Your task to perform on an android device: Search for pizza restaurants on Maps Image 0: 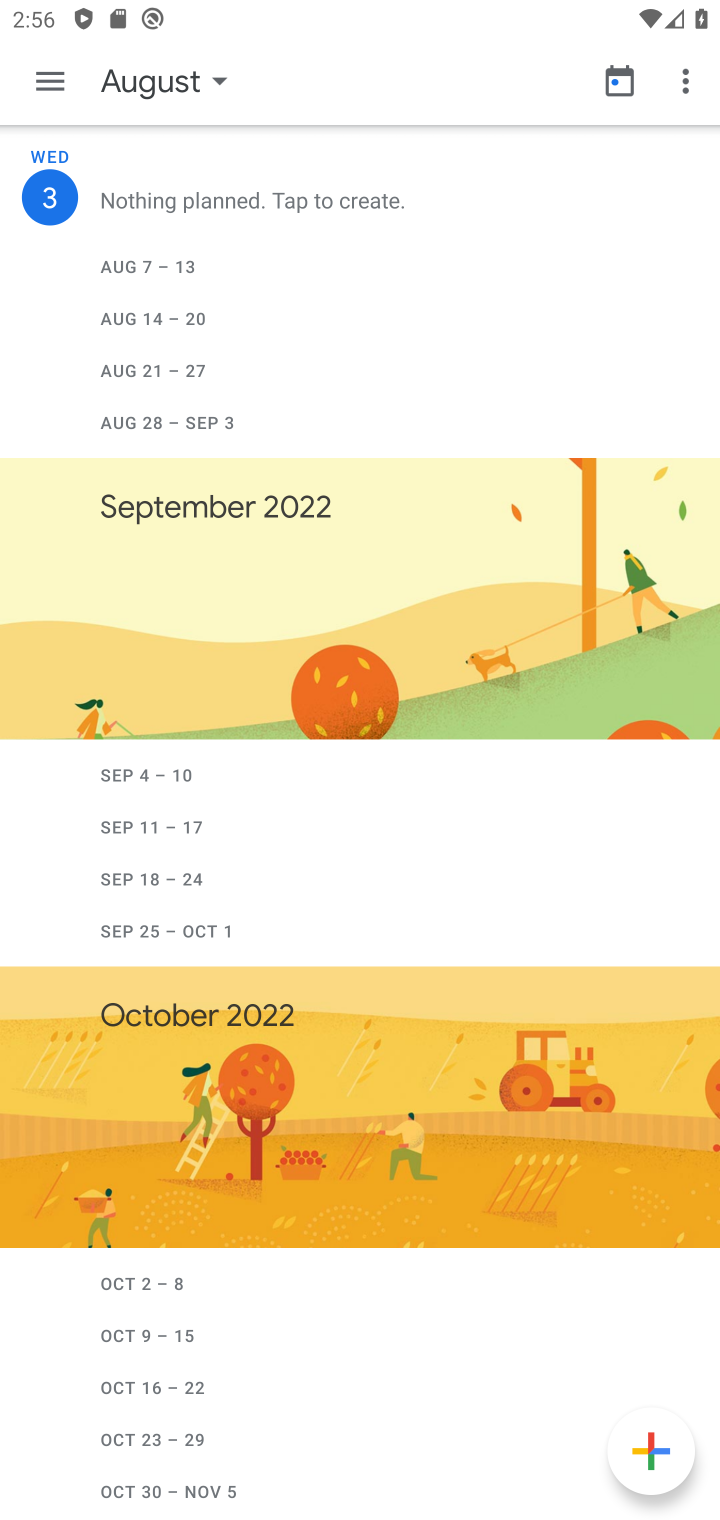
Step 0: press back button
Your task to perform on an android device: Search for pizza restaurants on Maps Image 1: 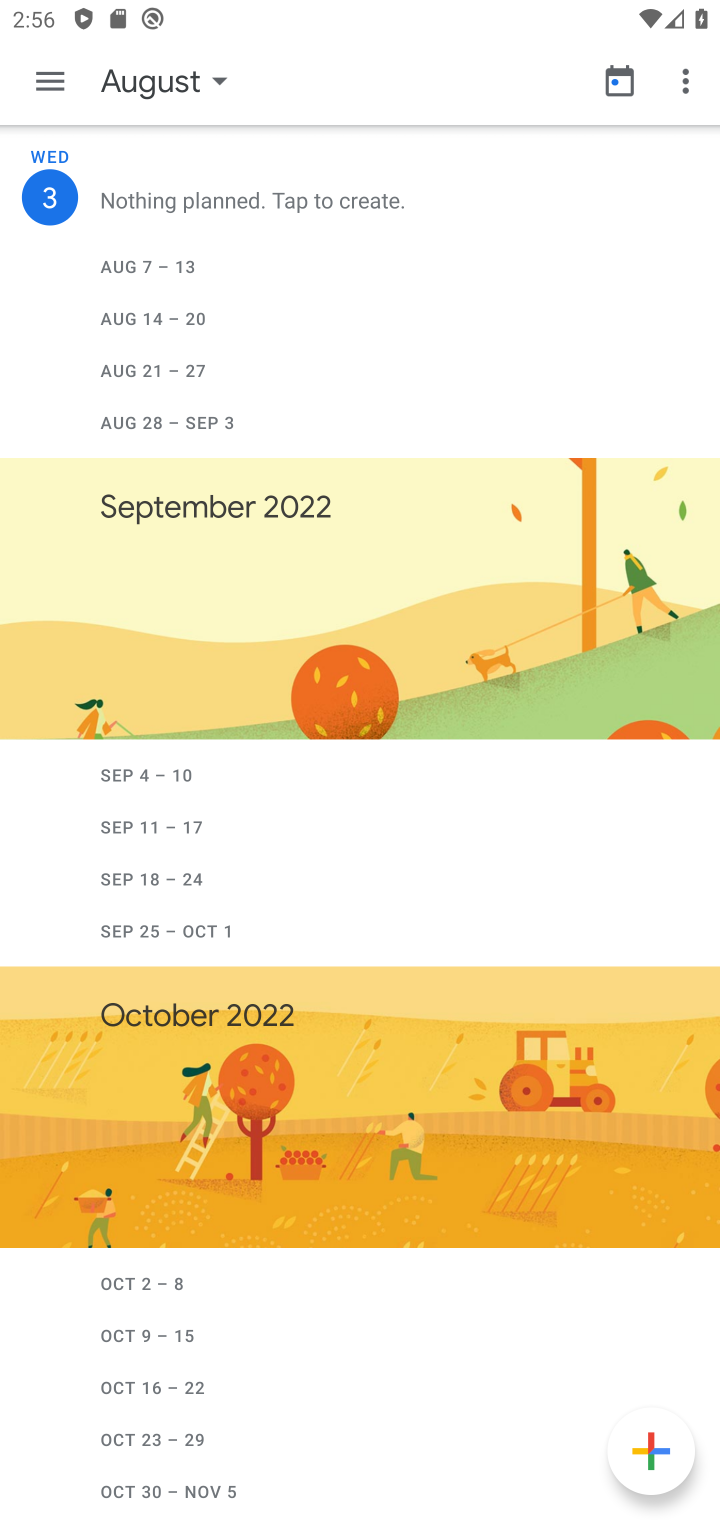
Step 1: press home button
Your task to perform on an android device: Search for pizza restaurants on Maps Image 2: 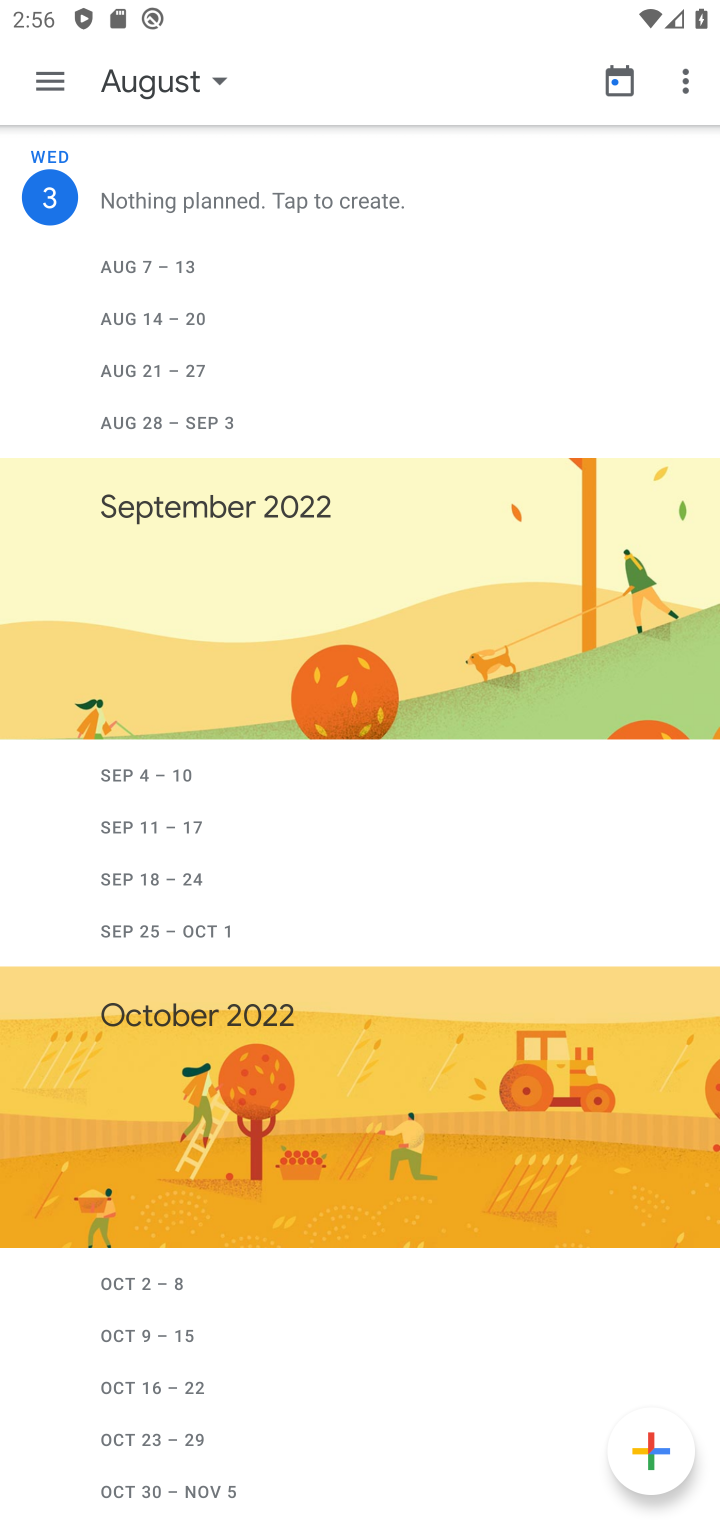
Step 2: drag from (361, 425) to (349, 334)
Your task to perform on an android device: Search for pizza restaurants on Maps Image 3: 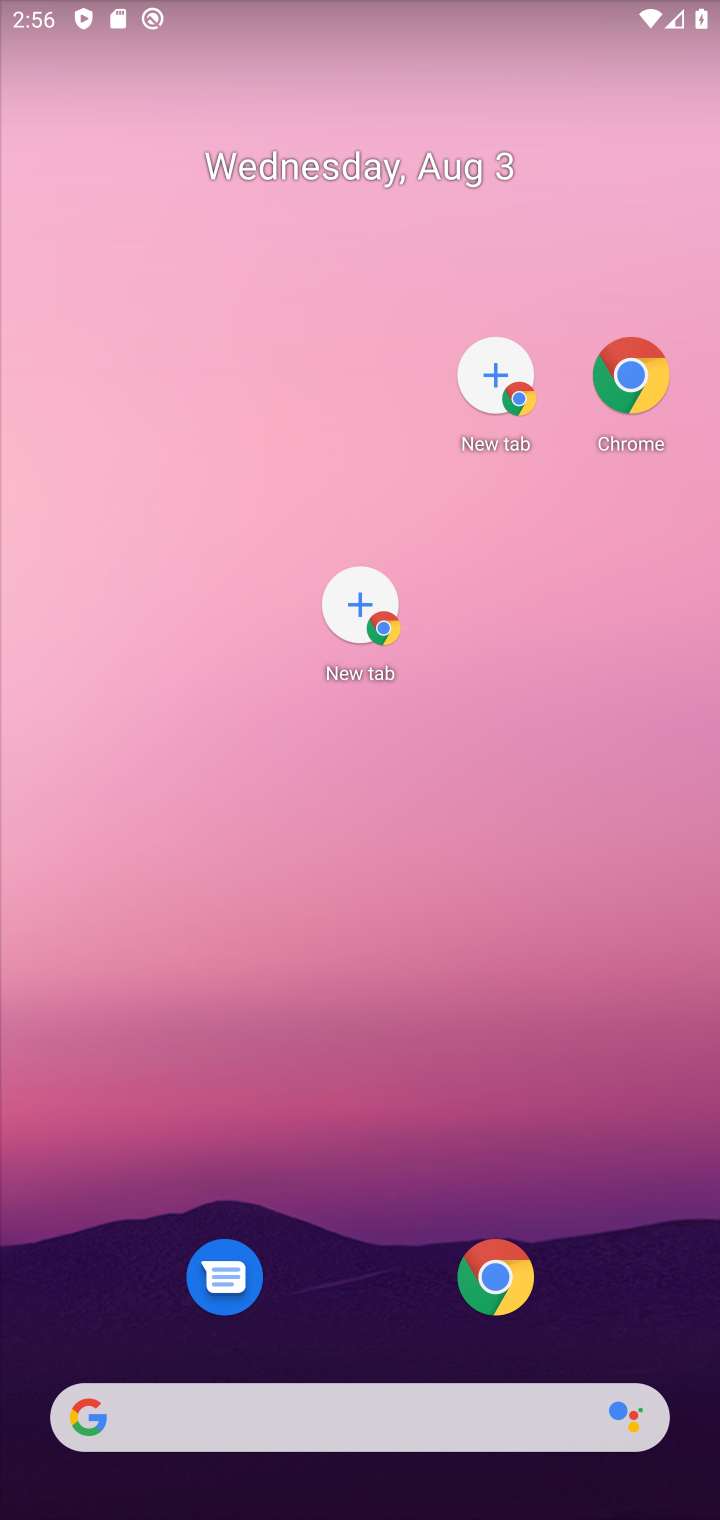
Step 3: drag from (380, 1361) to (224, 389)
Your task to perform on an android device: Search for pizza restaurants on Maps Image 4: 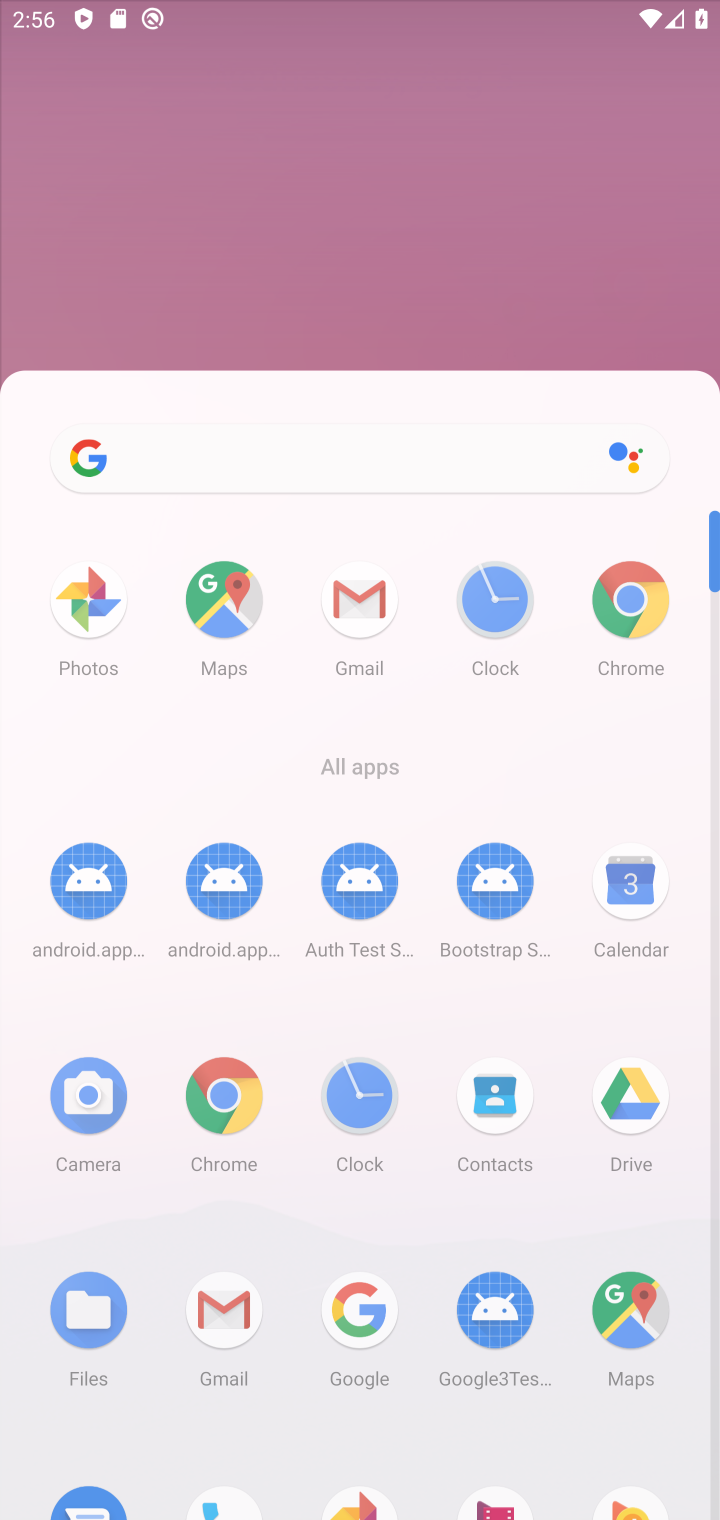
Step 4: click (272, 414)
Your task to perform on an android device: Search for pizza restaurants on Maps Image 5: 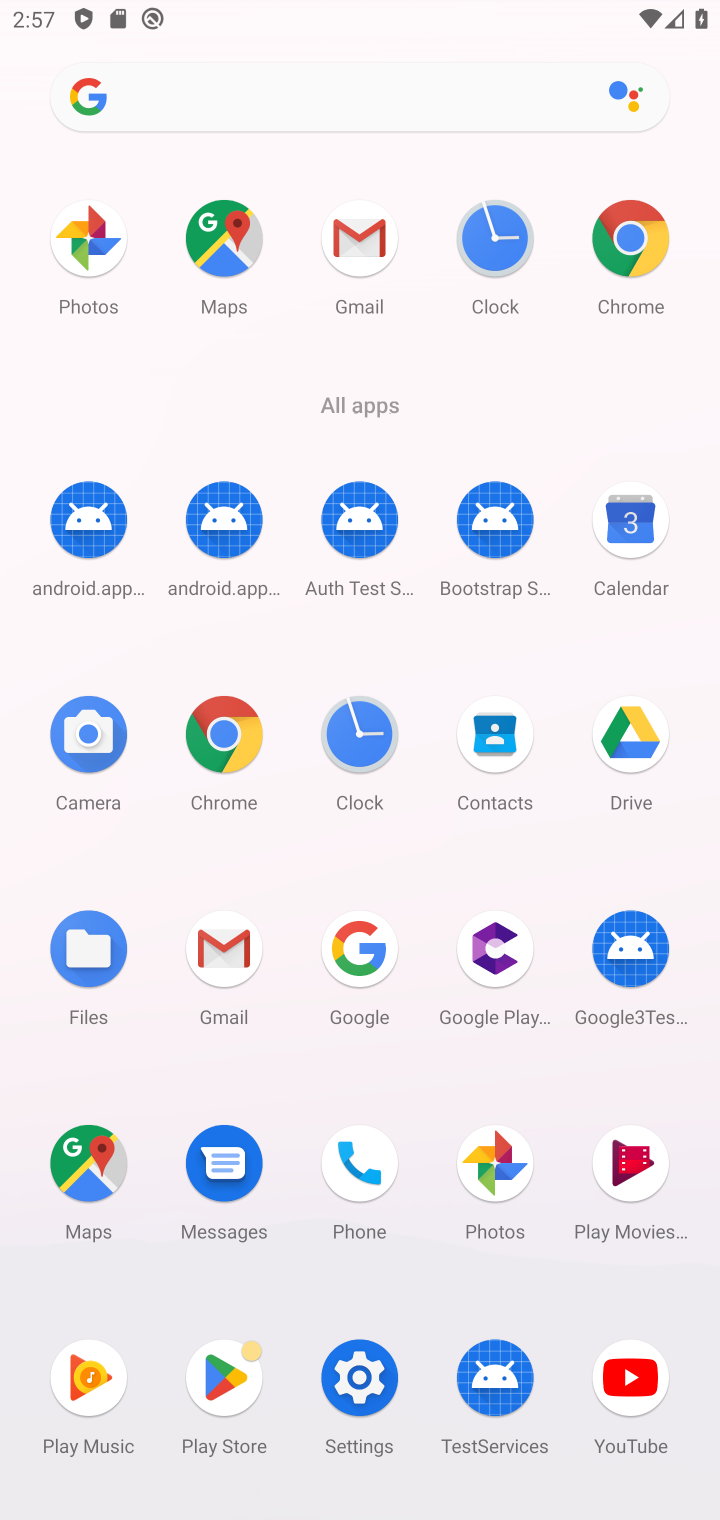
Step 5: click (62, 1156)
Your task to perform on an android device: Search for pizza restaurants on Maps Image 6: 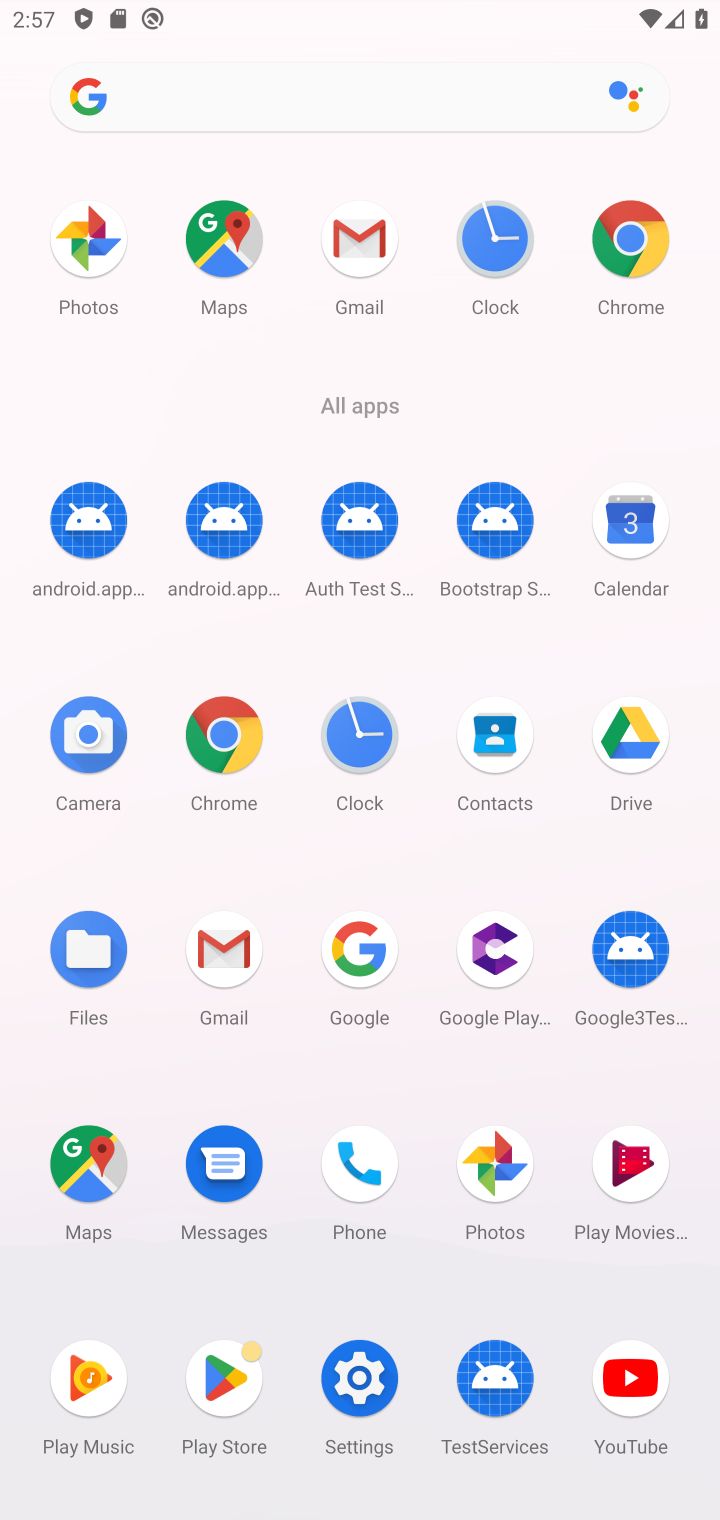
Step 6: click (90, 1179)
Your task to perform on an android device: Search for pizza restaurants on Maps Image 7: 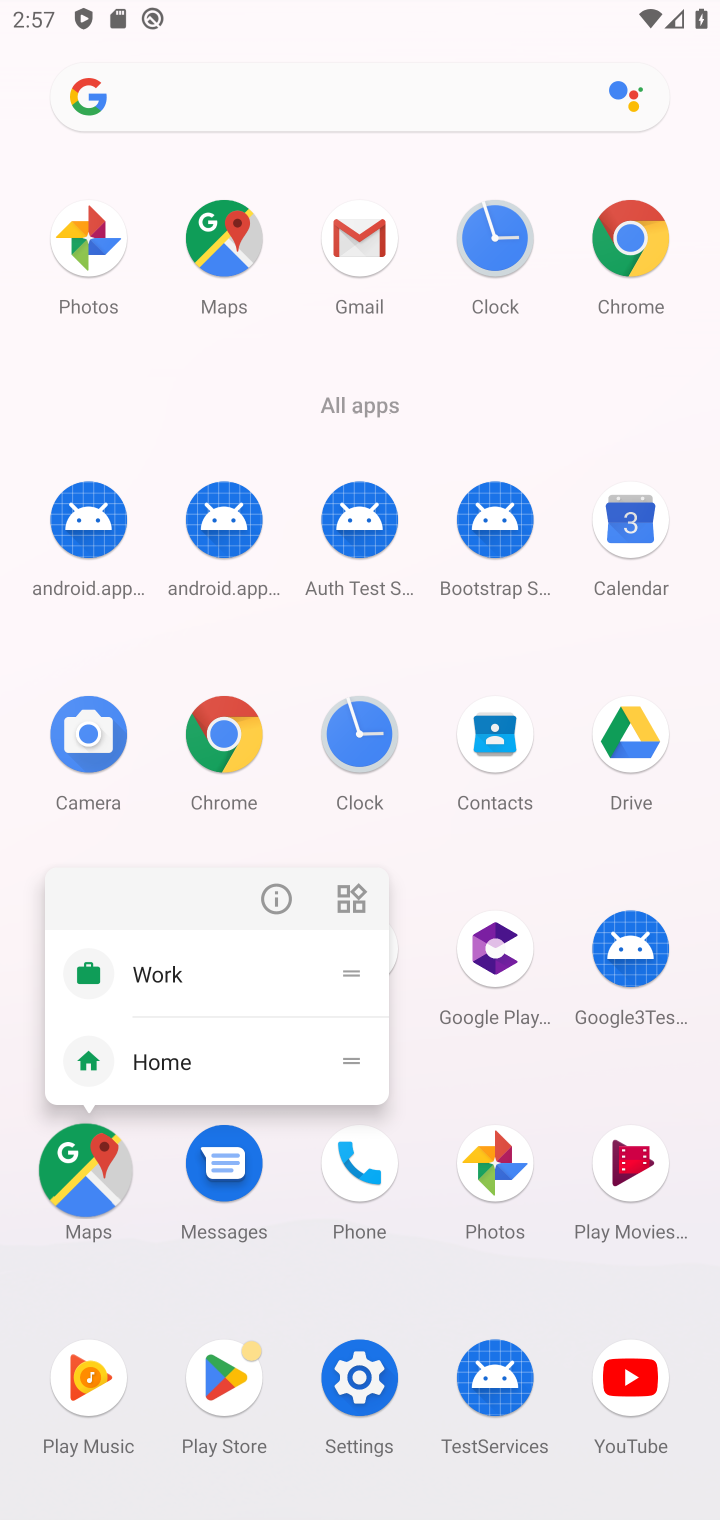
Step 7: click (87, 1186)
Your task to perform on an android device: Search for pizza restaurants on Maps Image 8: 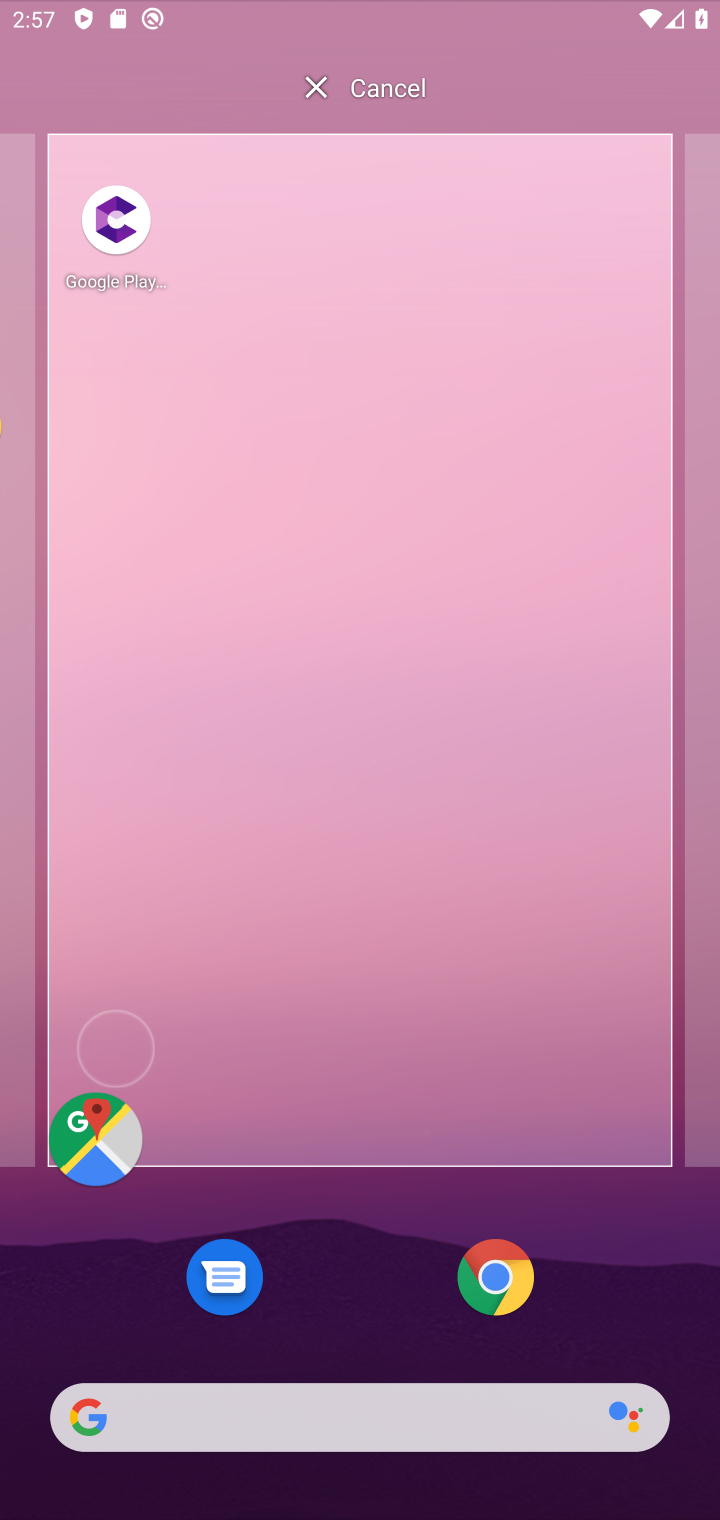
Step 8: click (76, 1121)
Your task to perform on an android device: Search for pizza restaurants on Maps Image 9: 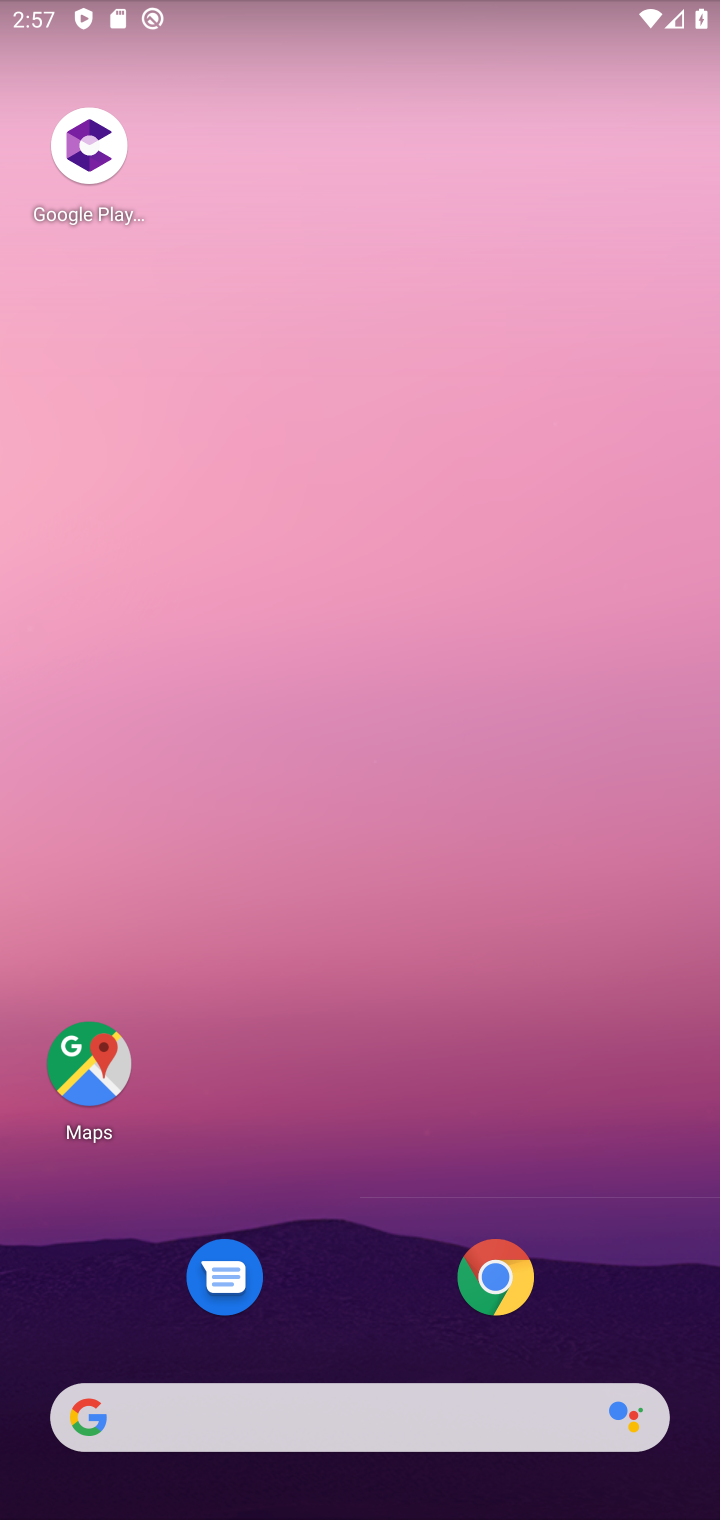
Step 9: drag from (265, 629) to (260, 376)
Your task to perform on an android device: Search for pizza restaurants on Maps Image 10: 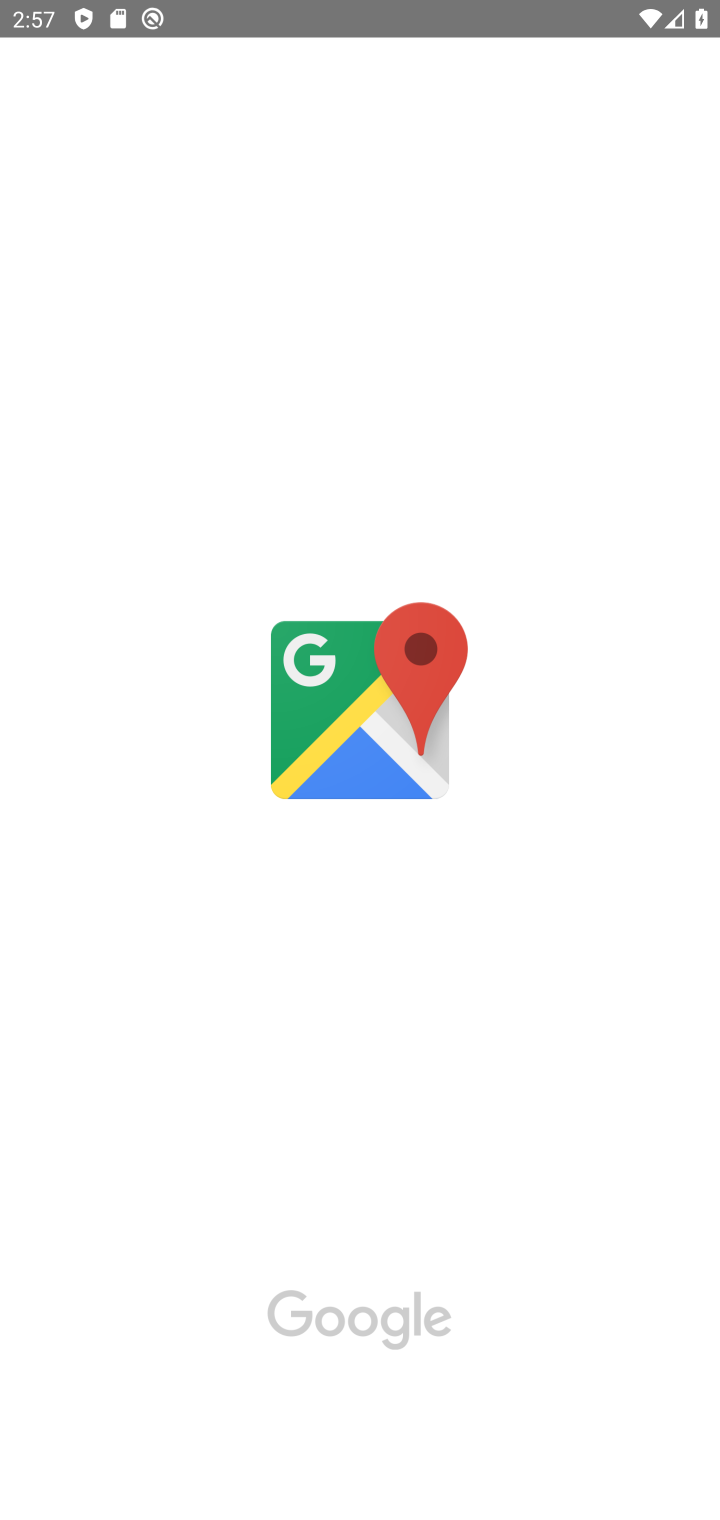
Step 10: drag from (340, 765) to (286, 252)
Your task to perform on an android device: Search for pizza restaurants on Maps Image 11: 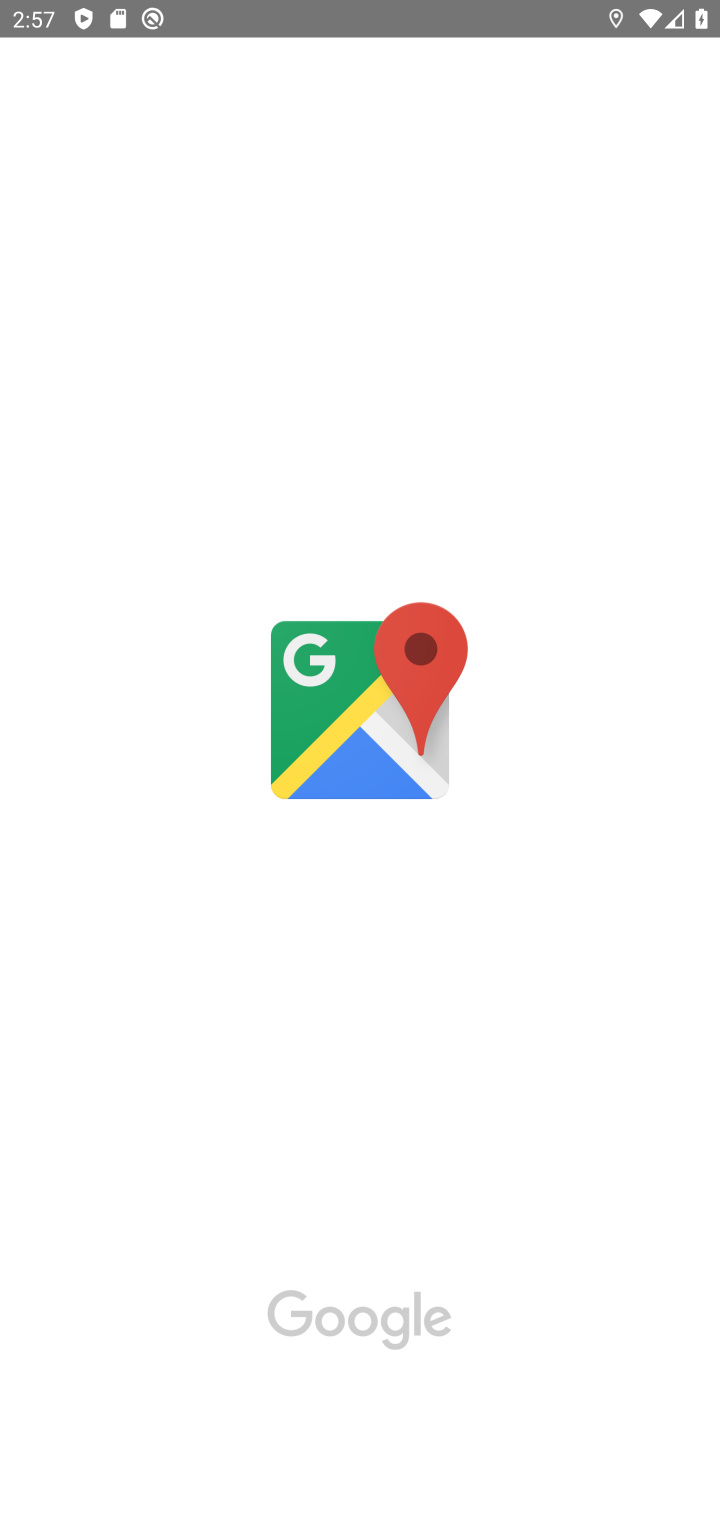
Step 11: drag from (412, 1058) to (363, 566)
Your task to perform on an android device: Search for pizza restaurants on Maps Image 12: 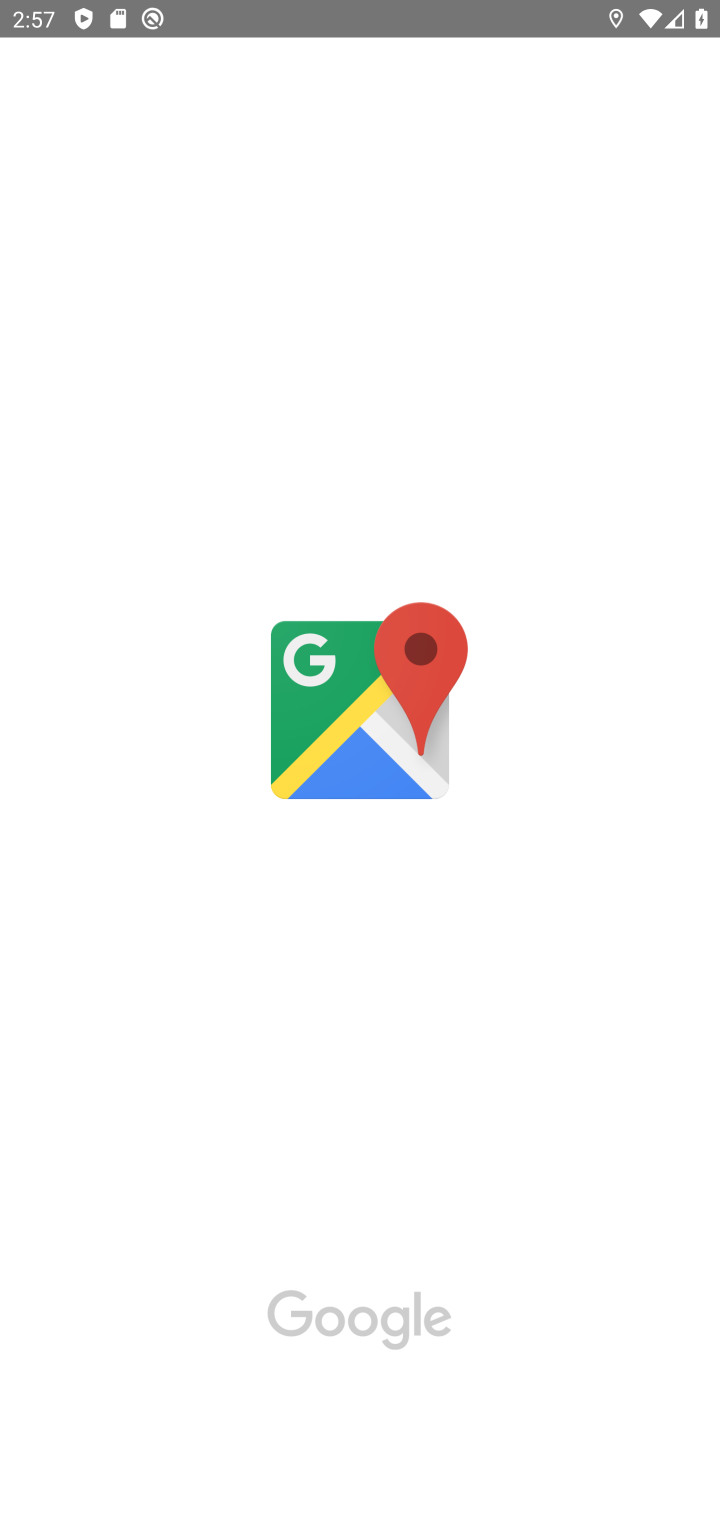
Step 12: click (318, 733)
Your task to perform on an android device: Search for pizza restaurants on Maps Image 13: 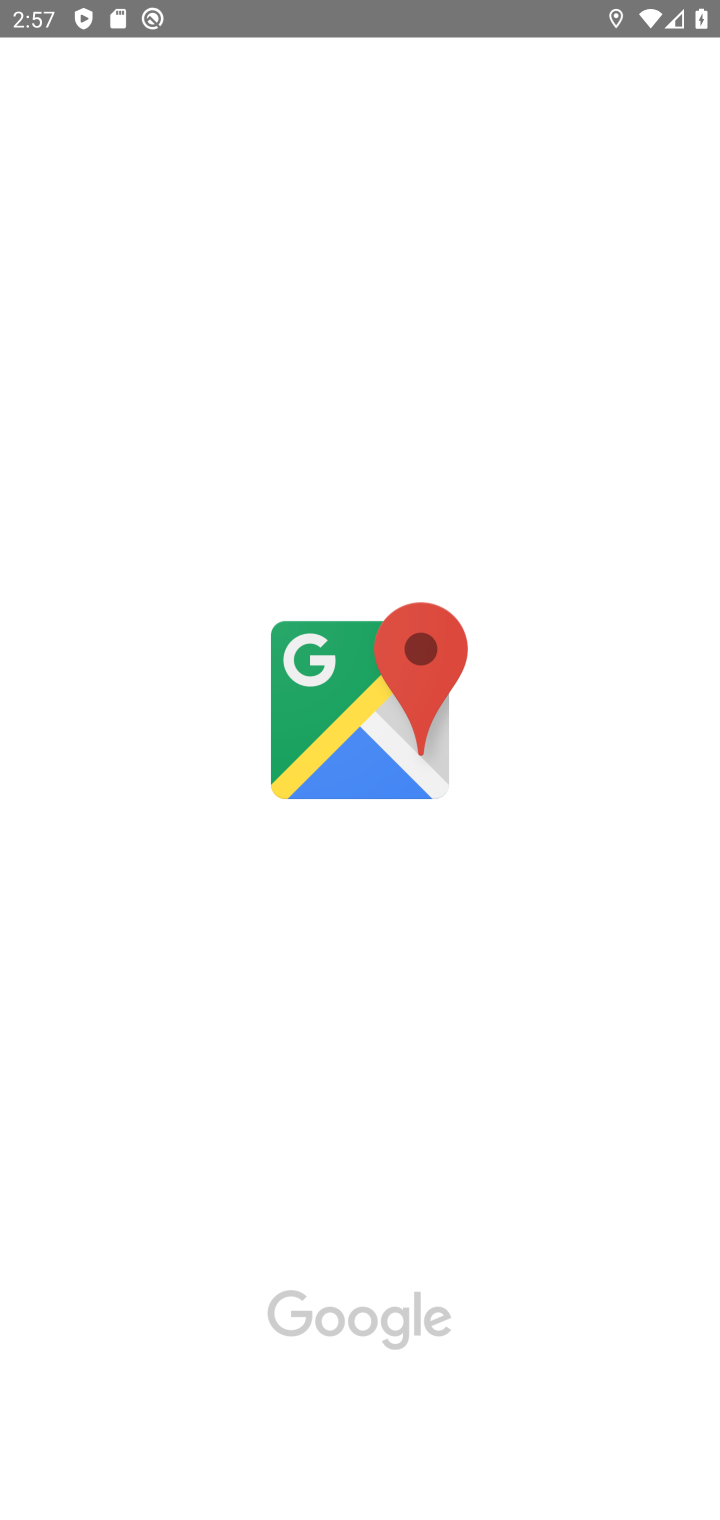
Step 13: click (339, 702)
Your task to perform on an android device: Search for pizza restaurants on Maps Image 14: 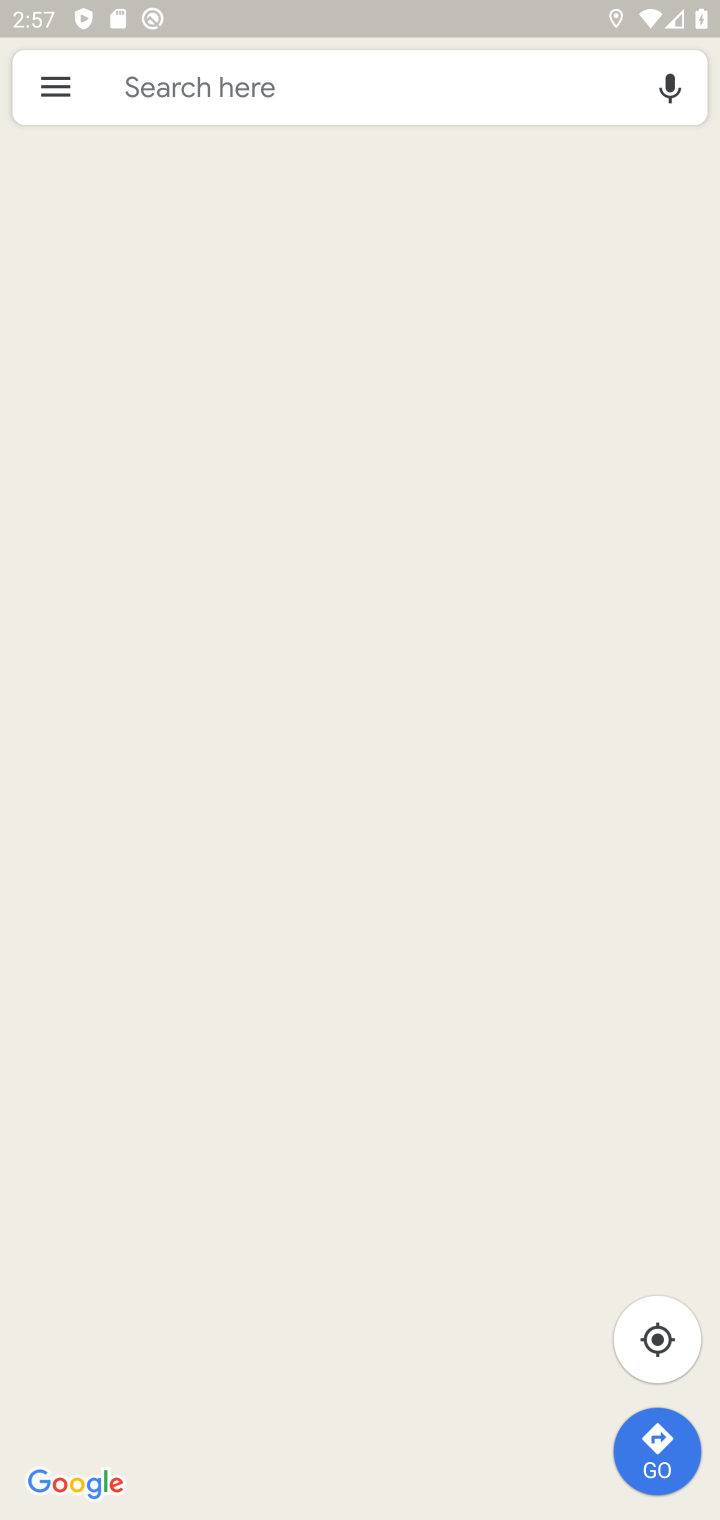
Step 14: click (144, 85)
Your task to perform on an android device: Search for pizza restaurants on Maps Image 15: 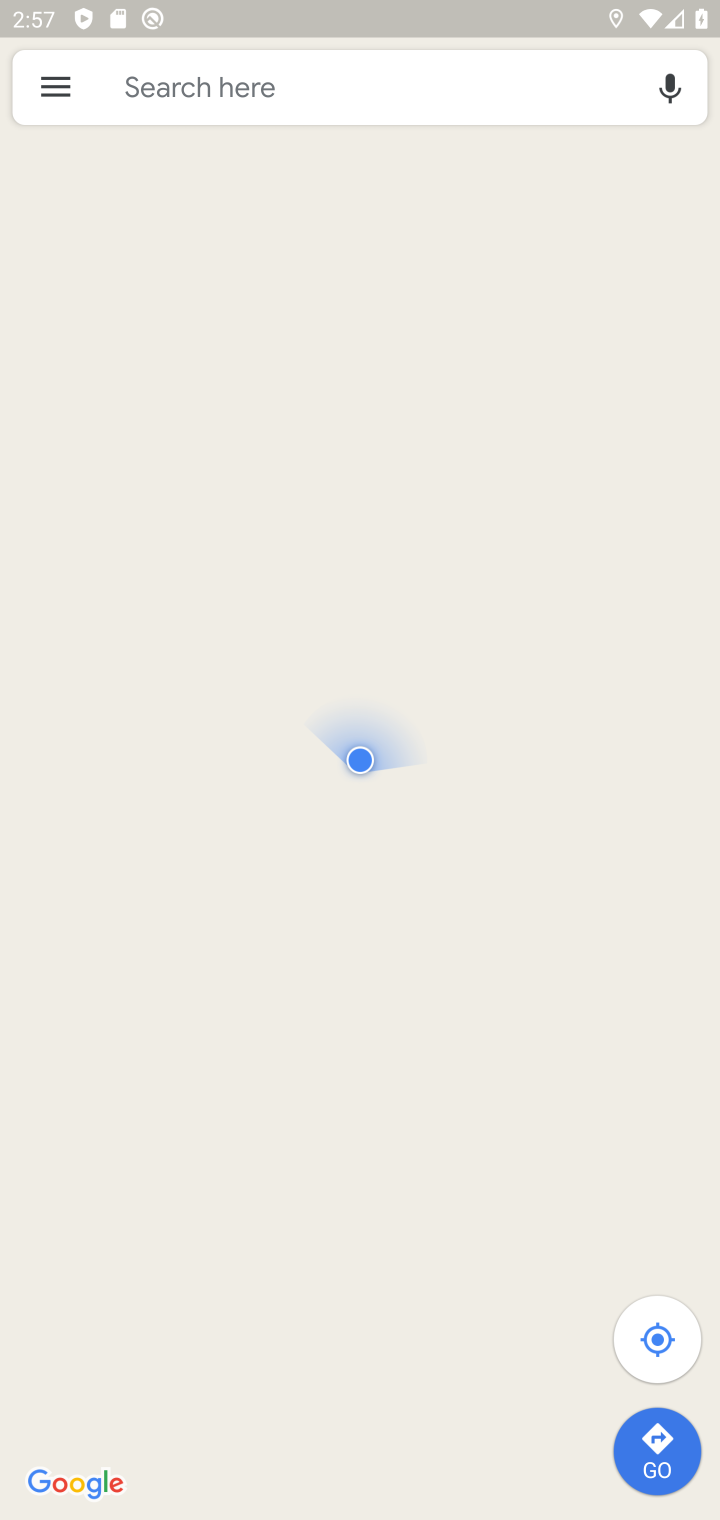
Step 15: click (177, 90)
Your task to perform on an android device: Search for pizza restaurants on Maps Image 16: 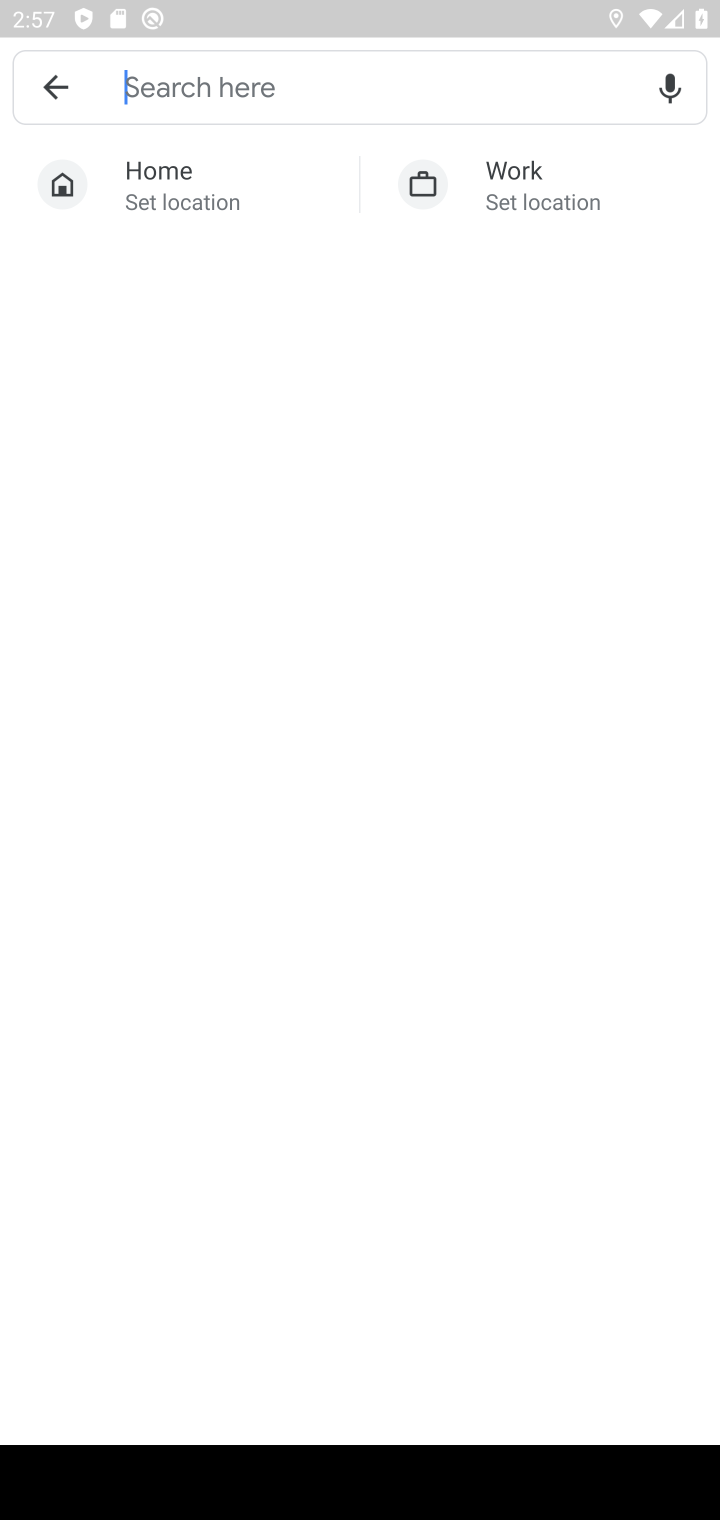
Step 16: type "pizza restaurants"
Your task to perform on an android device: Search for pizza restaurants on Maps Image 17: 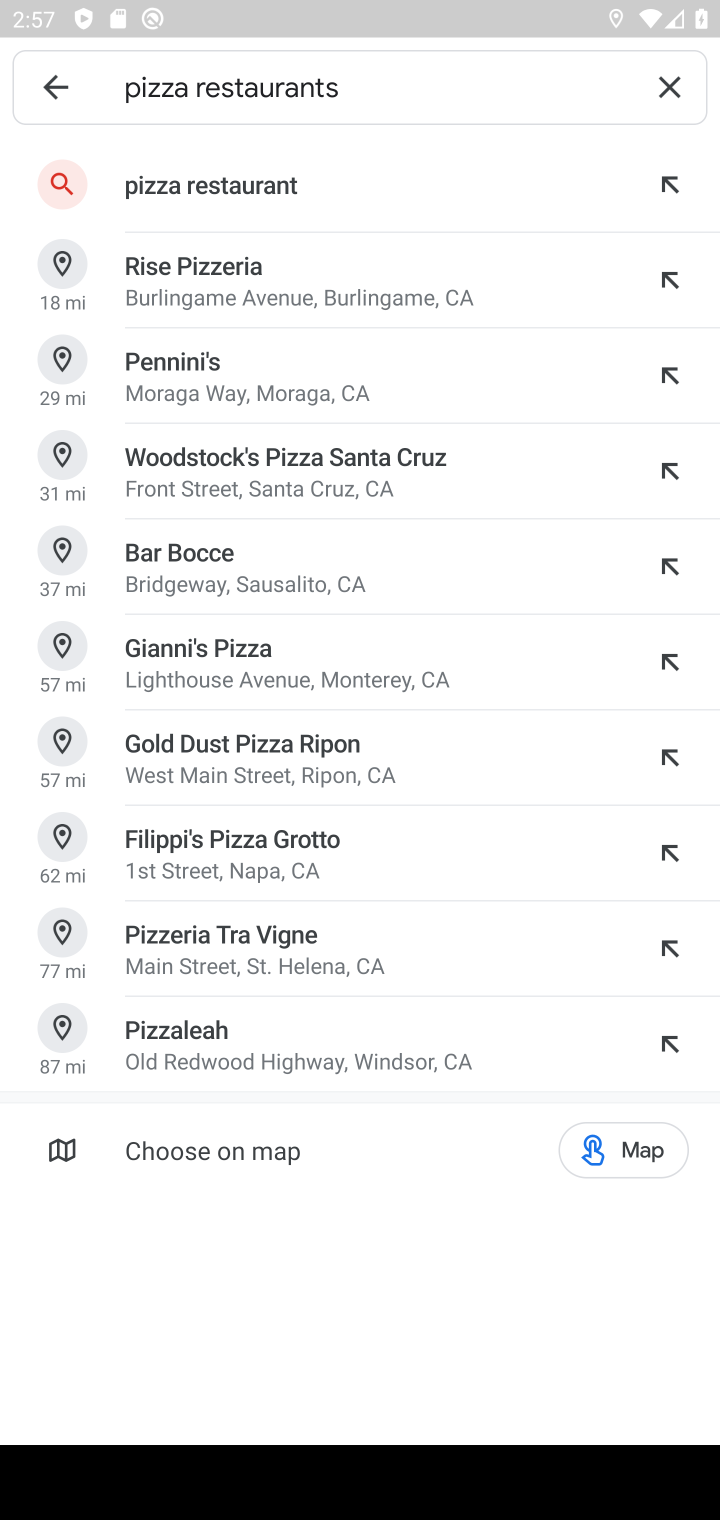
Step 17: click (325, 97)
Your task to perform on an android device: Search for pizza restaurants on Maps Image 18: 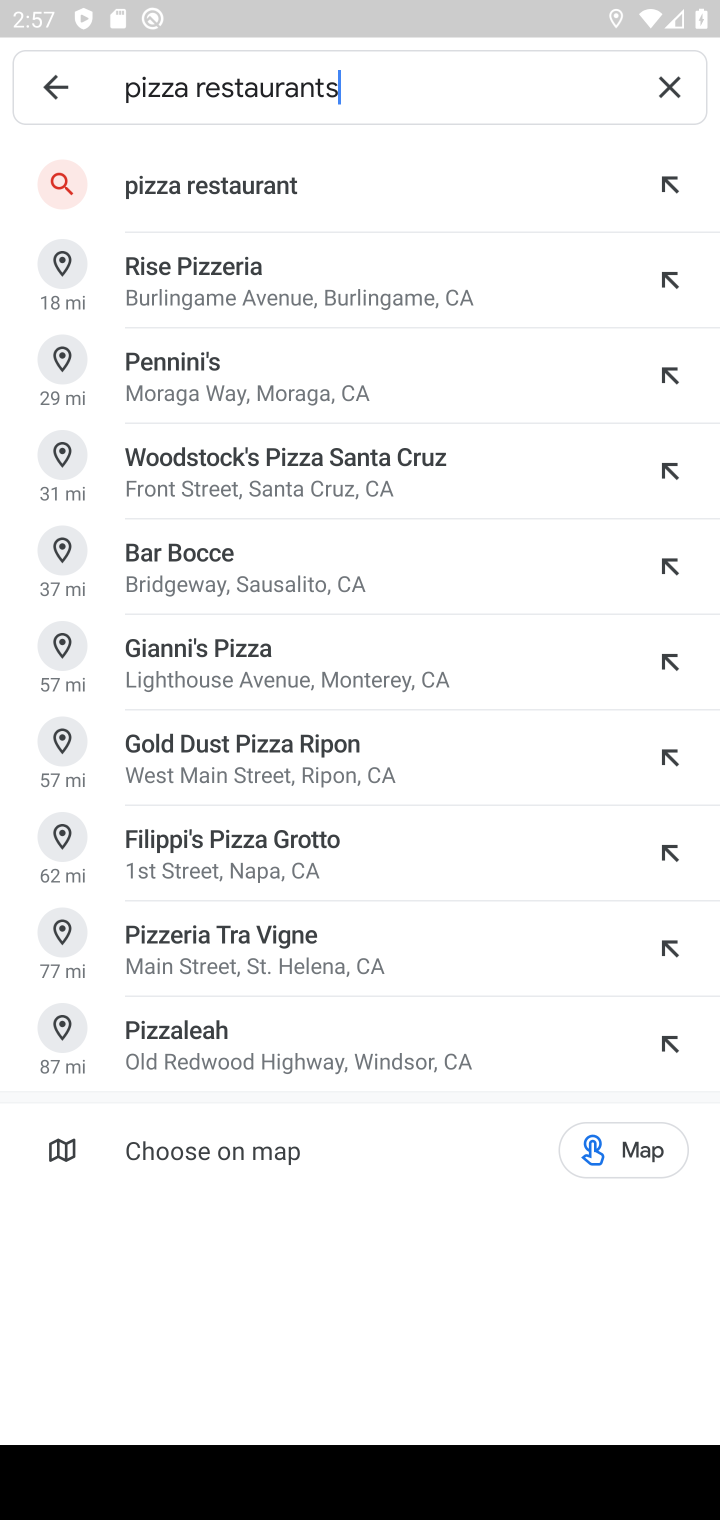
Step 18: click (201, 182)
Your task to perform on an android device: Search for pizza restaurants on Maps Image 19: 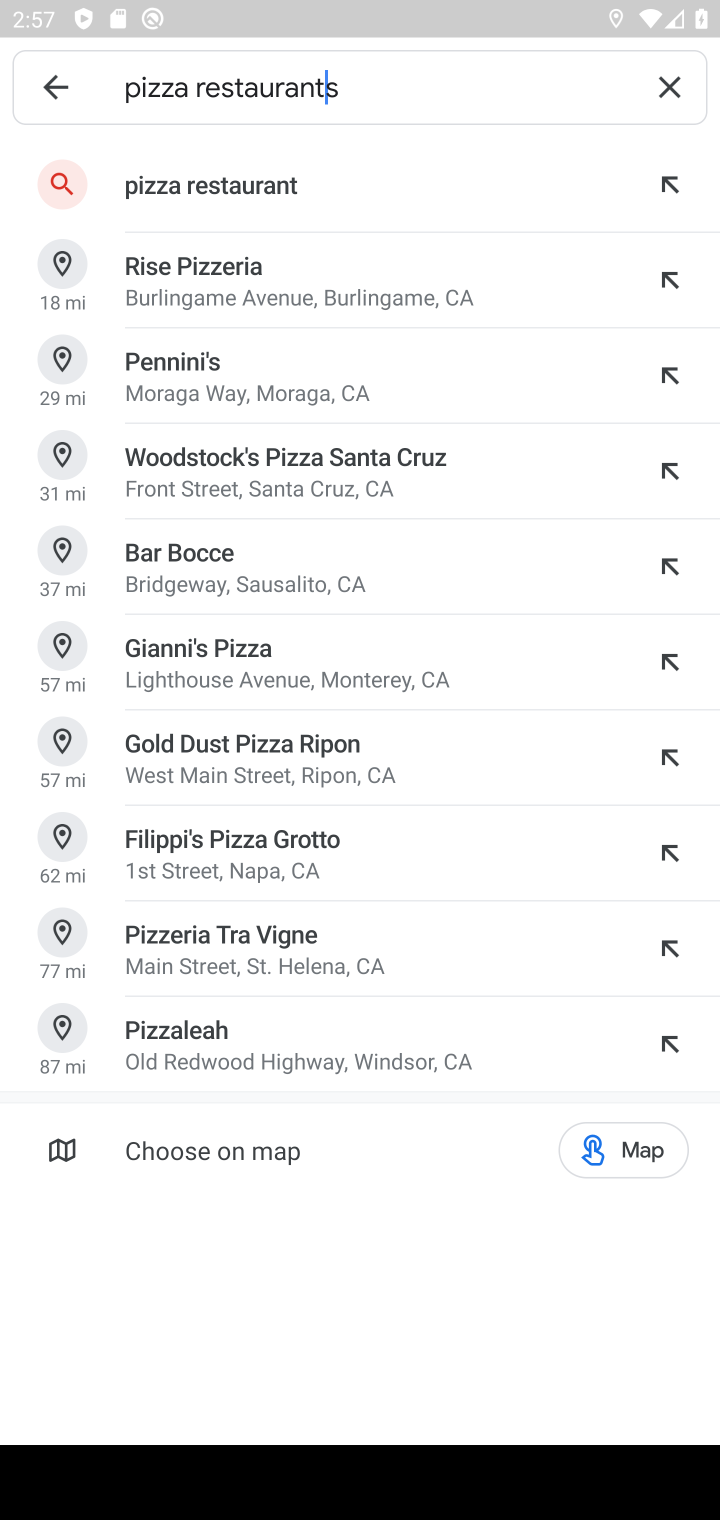
Step 19: click (189, 204)
Your task to perform on an android device: Search for pizza restaurants on Maps Image 20: 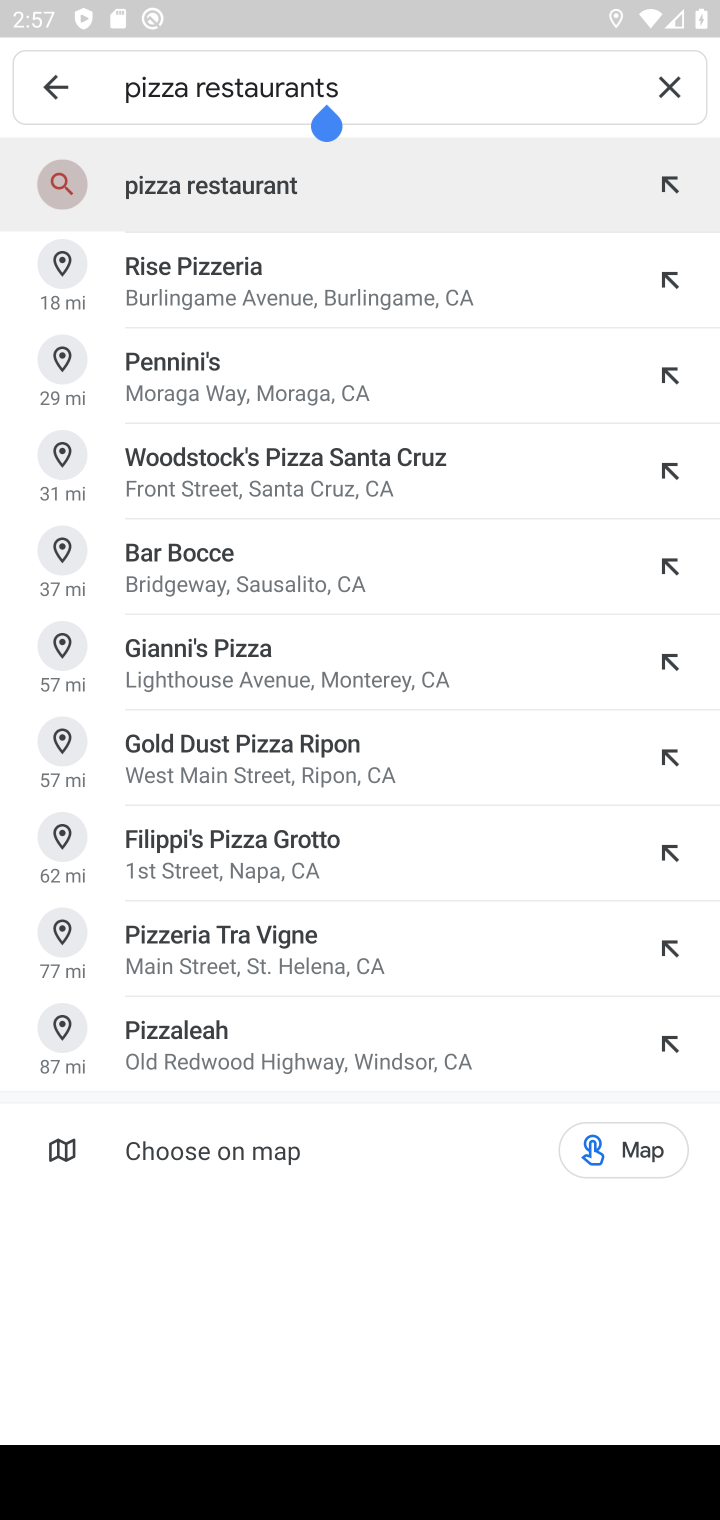
Step 20: click (189, 206)
Your task to perform on an android device: Search for pizza restaurants on Maps Image 21: 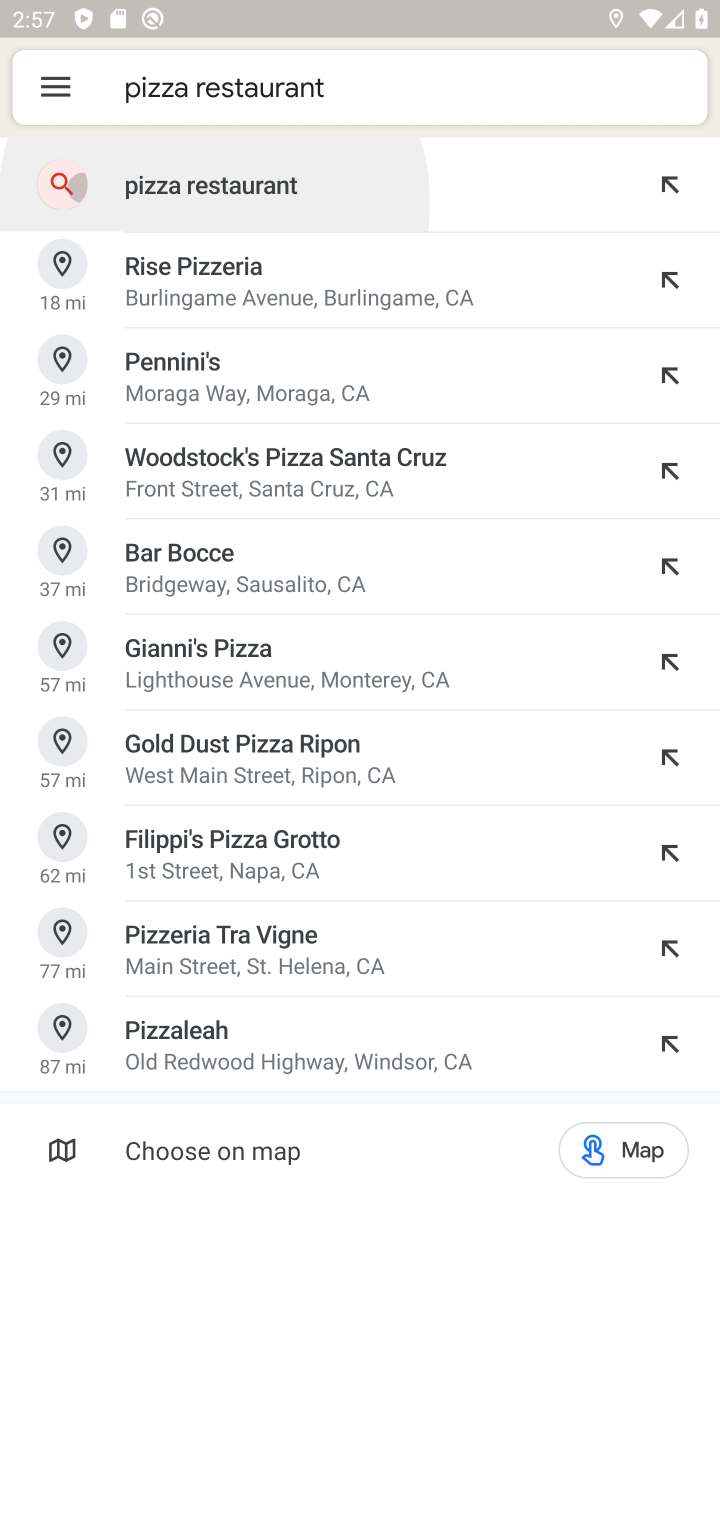
Step 21: click (251, 181)
Your task to perform on an android device: Search for pizza restaurants on Maps Image 22: 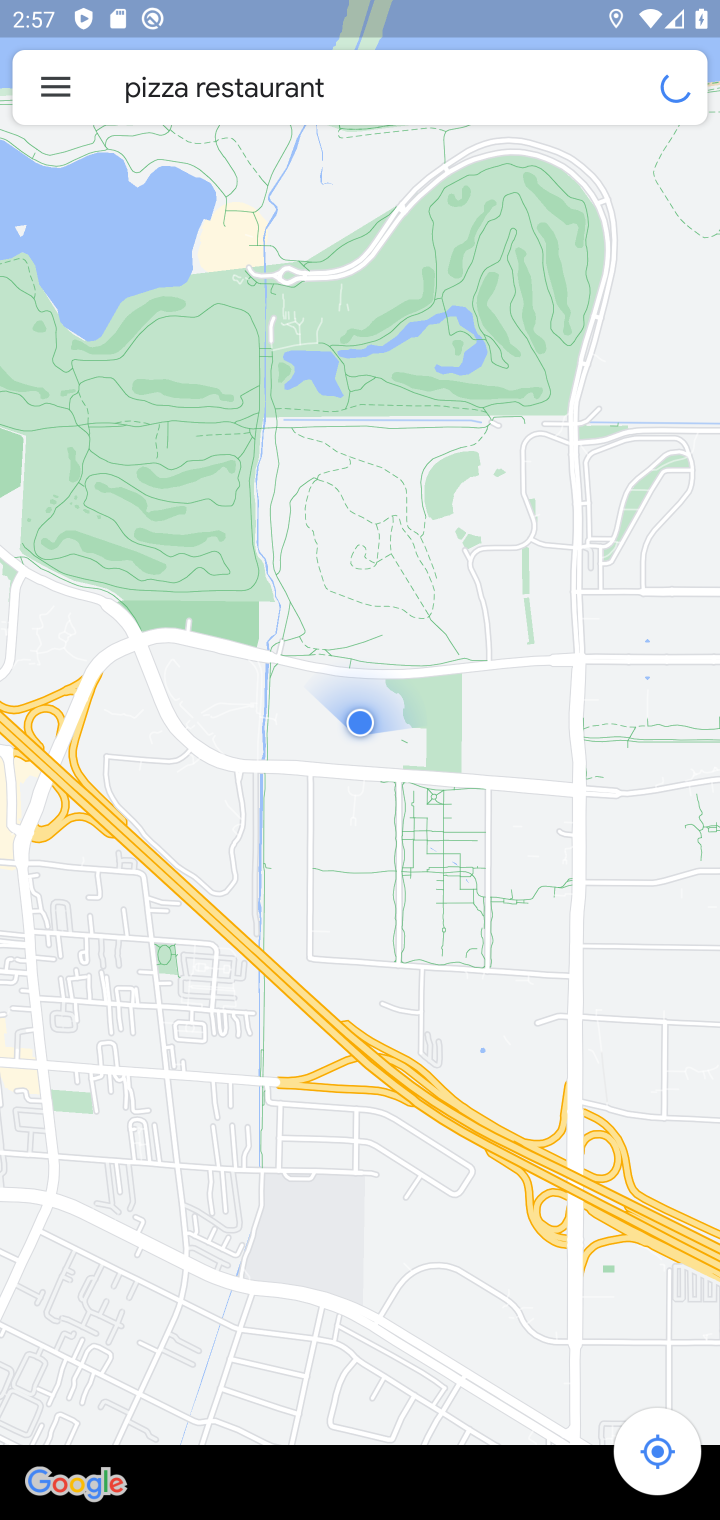
Step 22: click (253, 181)
Your task to perform on an android device: Search for pizza restaurants on Maps Image 23: 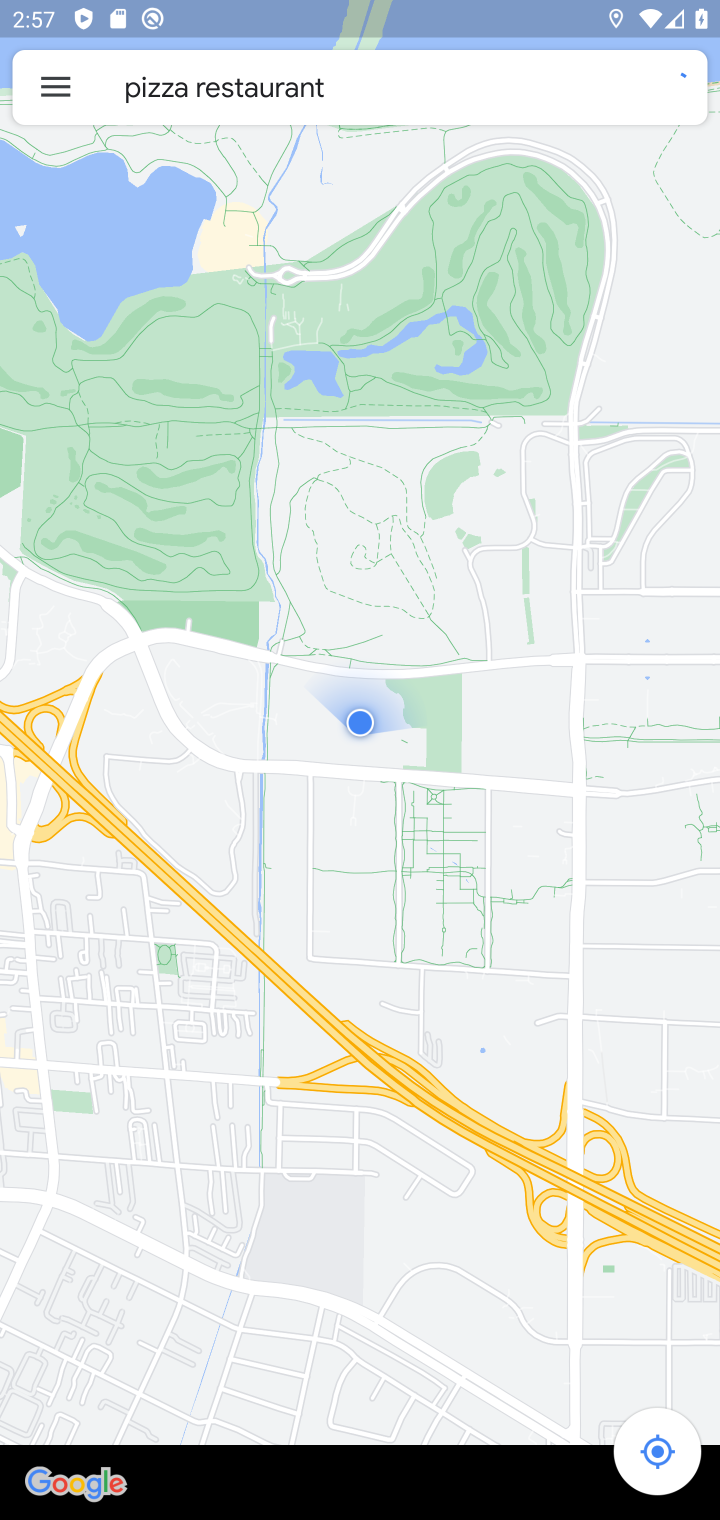
Step 23: task complete